Your task to perform on an android device: Go to Amazon Image 0: 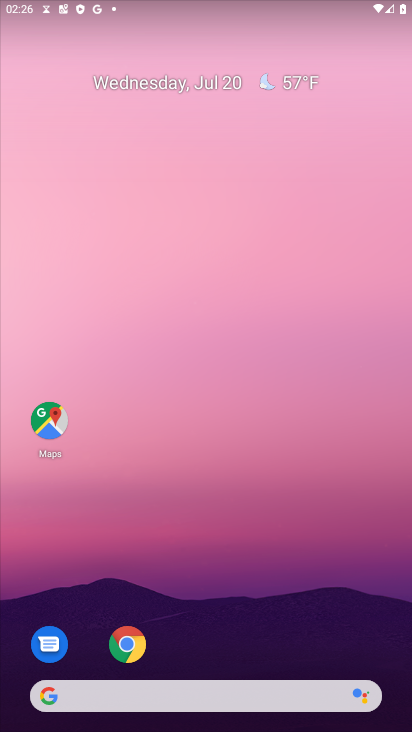
Step 0: press home button
Your task to perform on an android device: Go to Amazon Image 1: 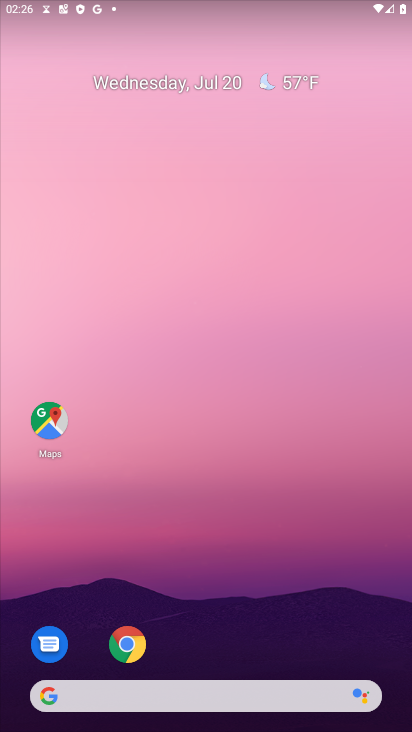
Step 1: click (46, 703)
Your task to perform on an android device: Go to Amazon Image 2: 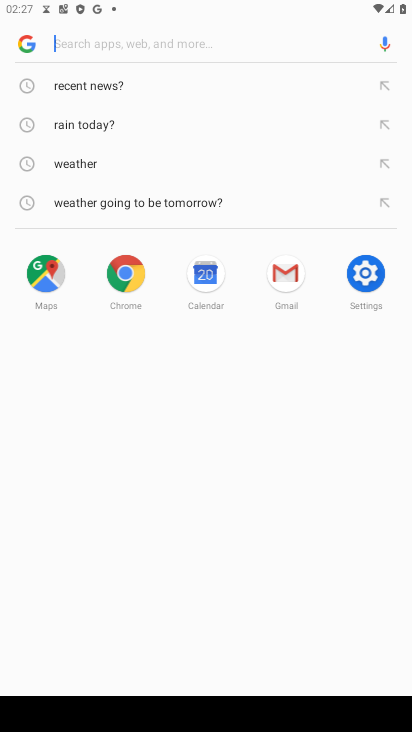
Step 2: type " Amazon"
Your task to perform on an android device: Go to Amazon Image 3: 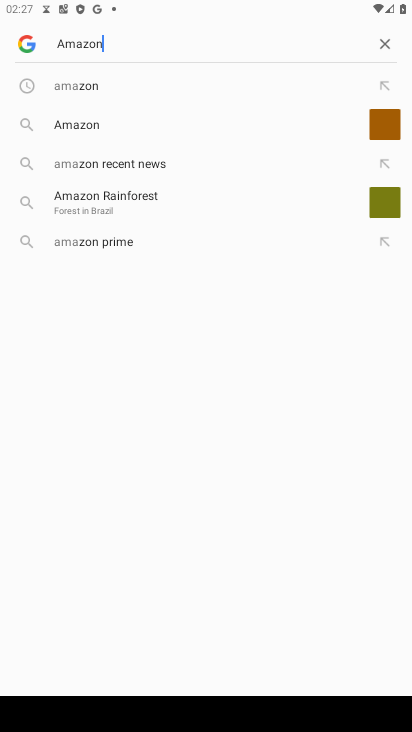
Step 3: press enter
Your task to perform on an android device: Go to Amazon Image 4: 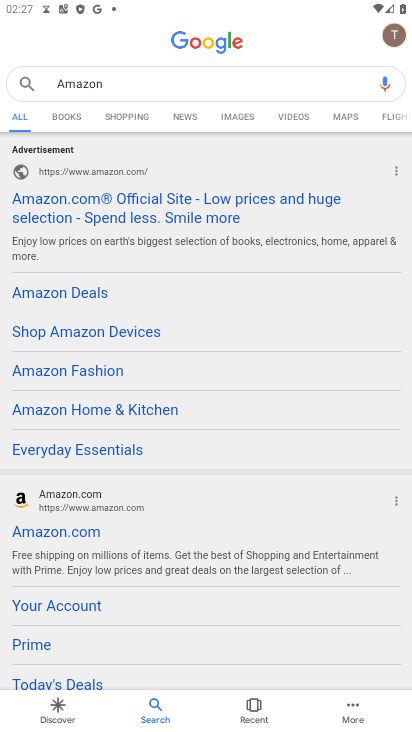
Step 4: press enter
Your task to perform on an android device: Go to Amazon Image 5: 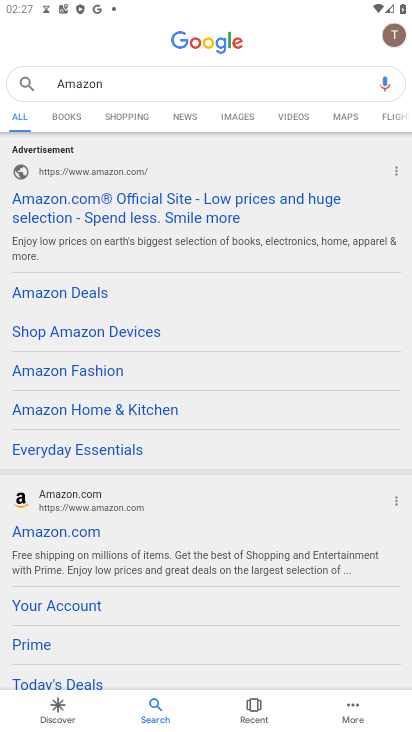
Step 5: click (111, 195)
Your task to perform on an android device: Go to Amazon Image 6: 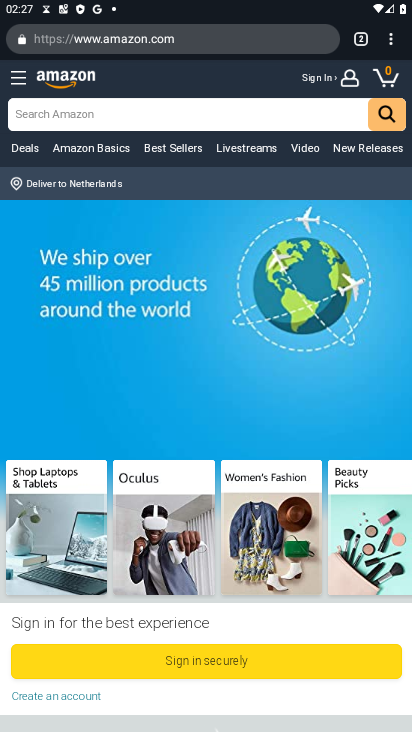
Step 6: task complete